Your task to perform on an android device: Go to Google Image 0: 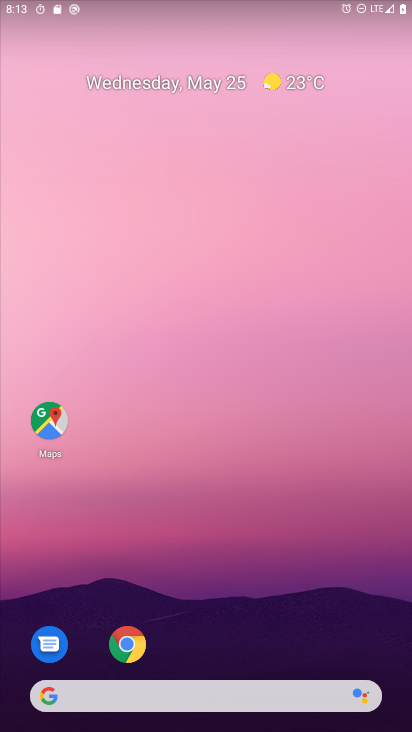
Step 0: drag from (319, 629) to (279, 167)
Your task to perform on an android device: Go to Google Image 1: 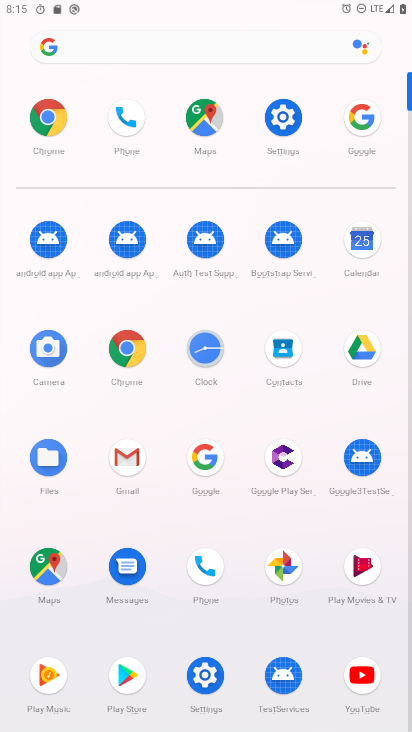
Step 1: click (207, 457)
Your task to perform on an android device: Go to Google Image 2: 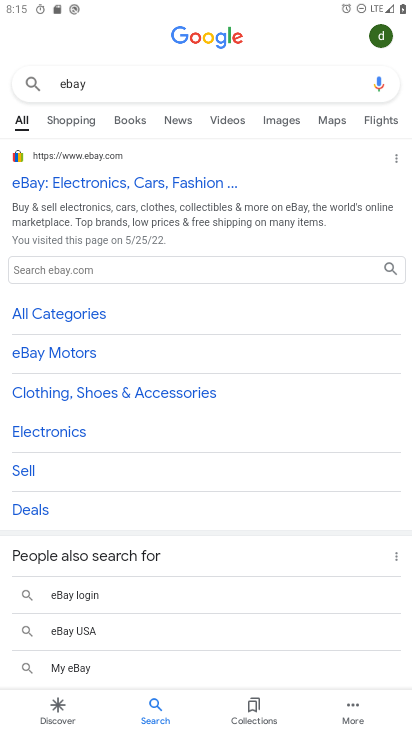
Step 2: task complete